Your task to perform on an android device: change the clock display to digital Image 0: 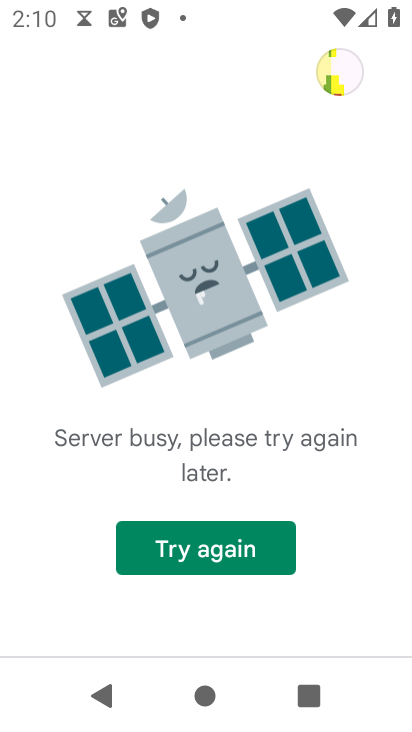
Step 0: press home button
Your task to perform on an android device: change the clock display to digital Image 1: 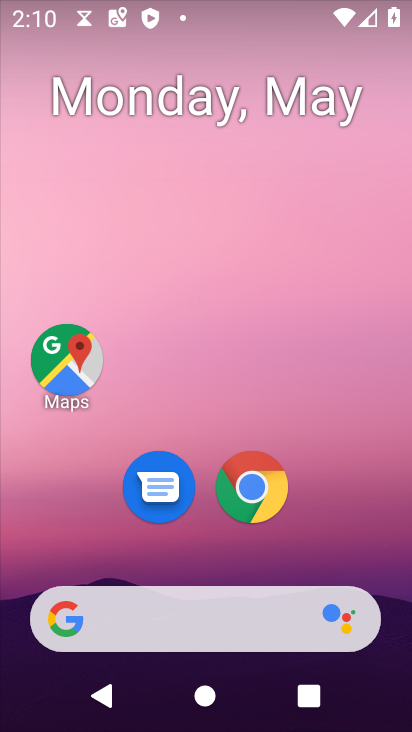
Step 1: drag from (397, 548) to (297, 75)
Your task to perform on an android device: change the clock display to digital Image 2: 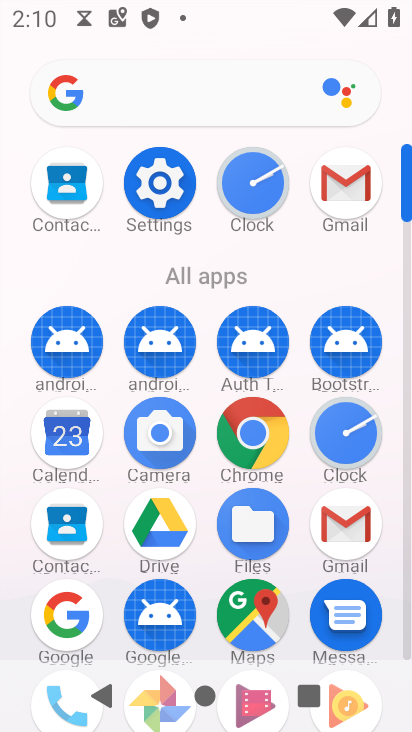
Step 2: click (255, 177)
Your task to perform on an android device: change the clock display to digital Image 3: 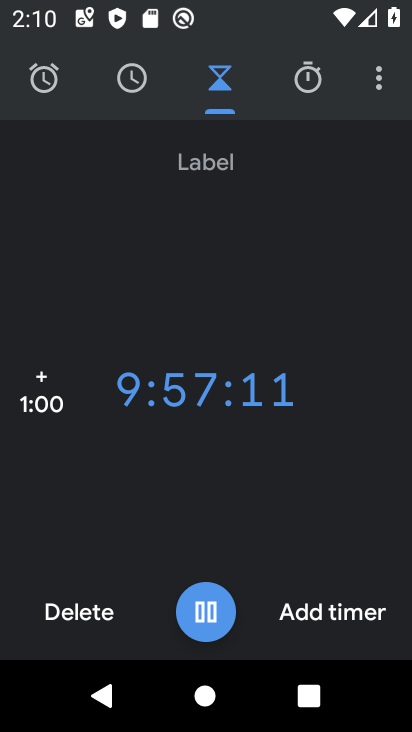
Step 3: click (383, 103)
Your task to perform on an android device: change the clock display to digital Image 4: 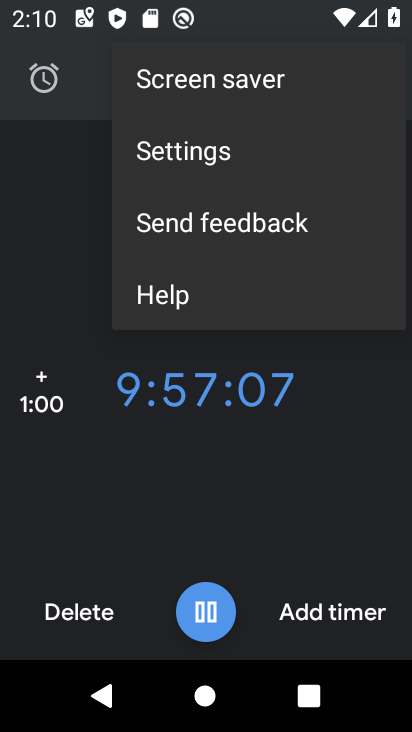
Step 4: click (298, 140)
Your task to perform on an android device: change the clock display to digital Image 5: 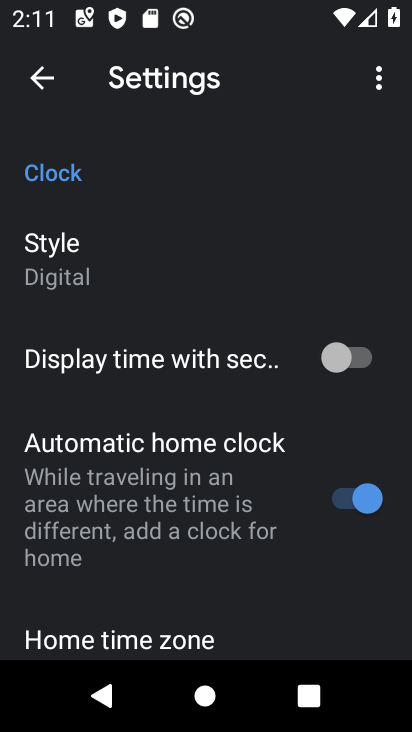
Step 5: click (175, 268)
Your task to perform on an android device: change the clock display to digital Image 6: 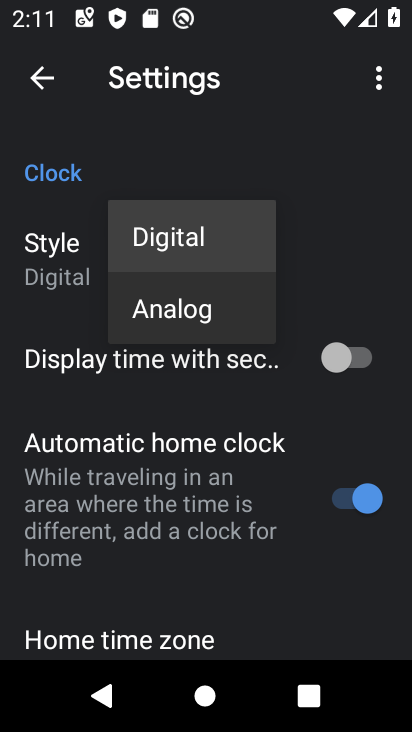
Step 6: task complete